Your task to perform on an android device: Go to Maps Image 0: 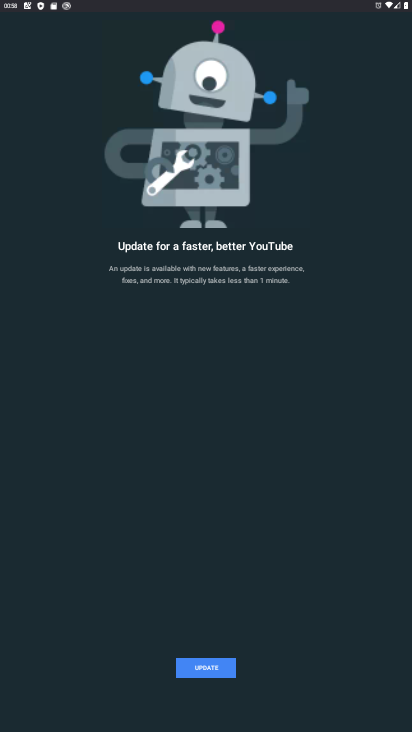
Step 0: click (214, 666)
Your task to perform on an android device: Go to Maps Image 1: 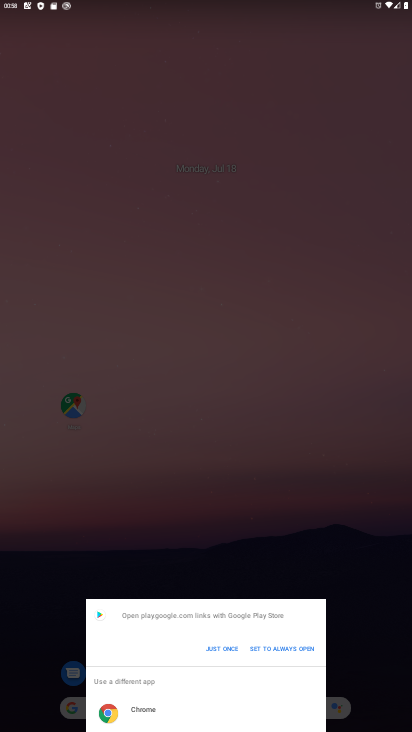
Step 1: click (208, 651)
Your task to perform on an android device: Go to Maps Image 2: 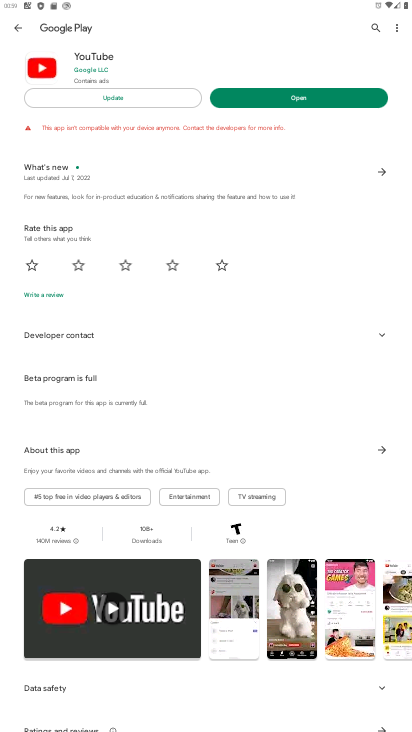
Step 2: click (149, 102)
Your task to perform on an android device: Go to Maps Image 3: 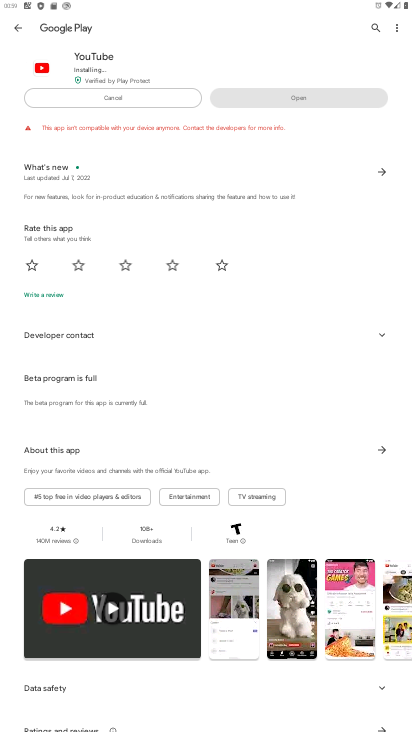
Step 3: task complete